Your task to perform on an android device: turn off improve location accuracy Image 0: 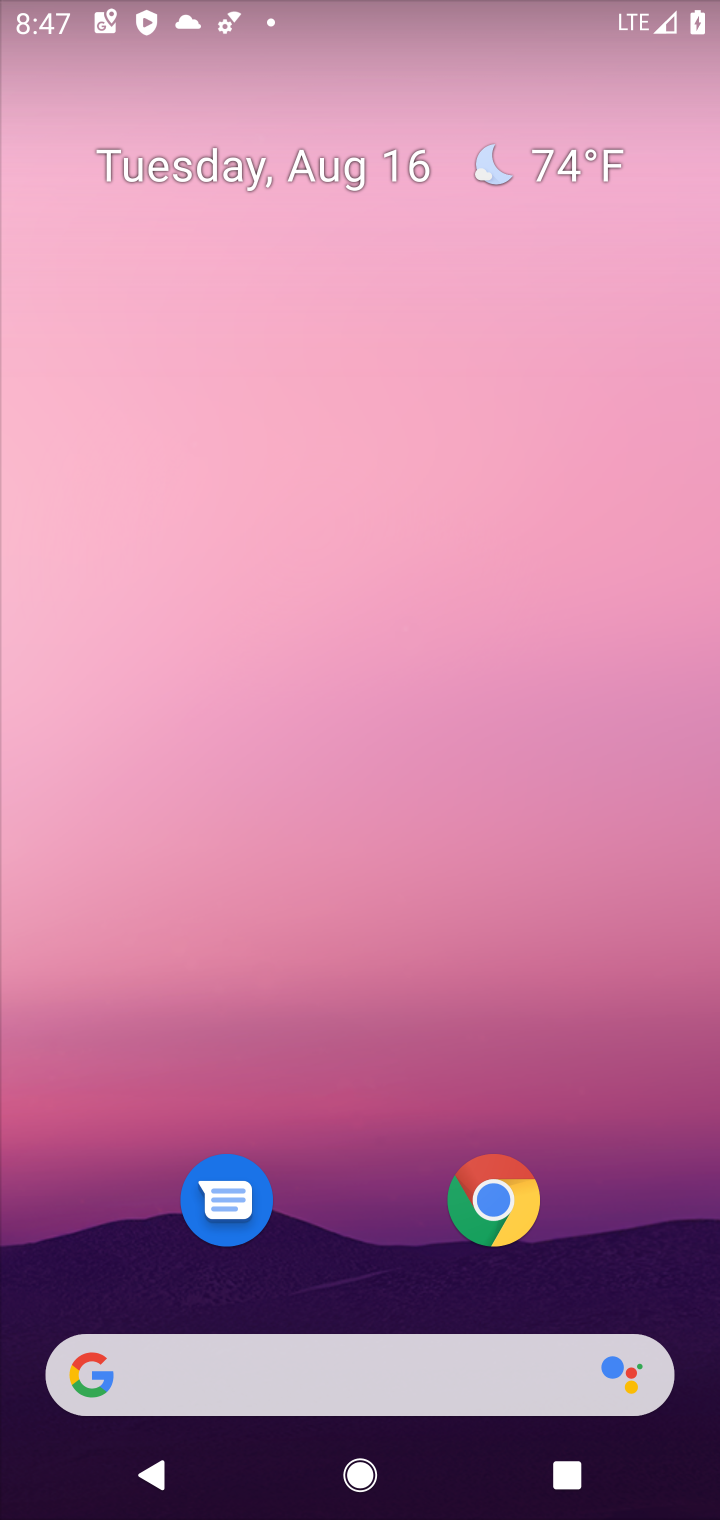
Step 0: drag from (646, 1280) to (599, 200)
Your task to perform on an android device: turn off improve location accuracy Image 1: 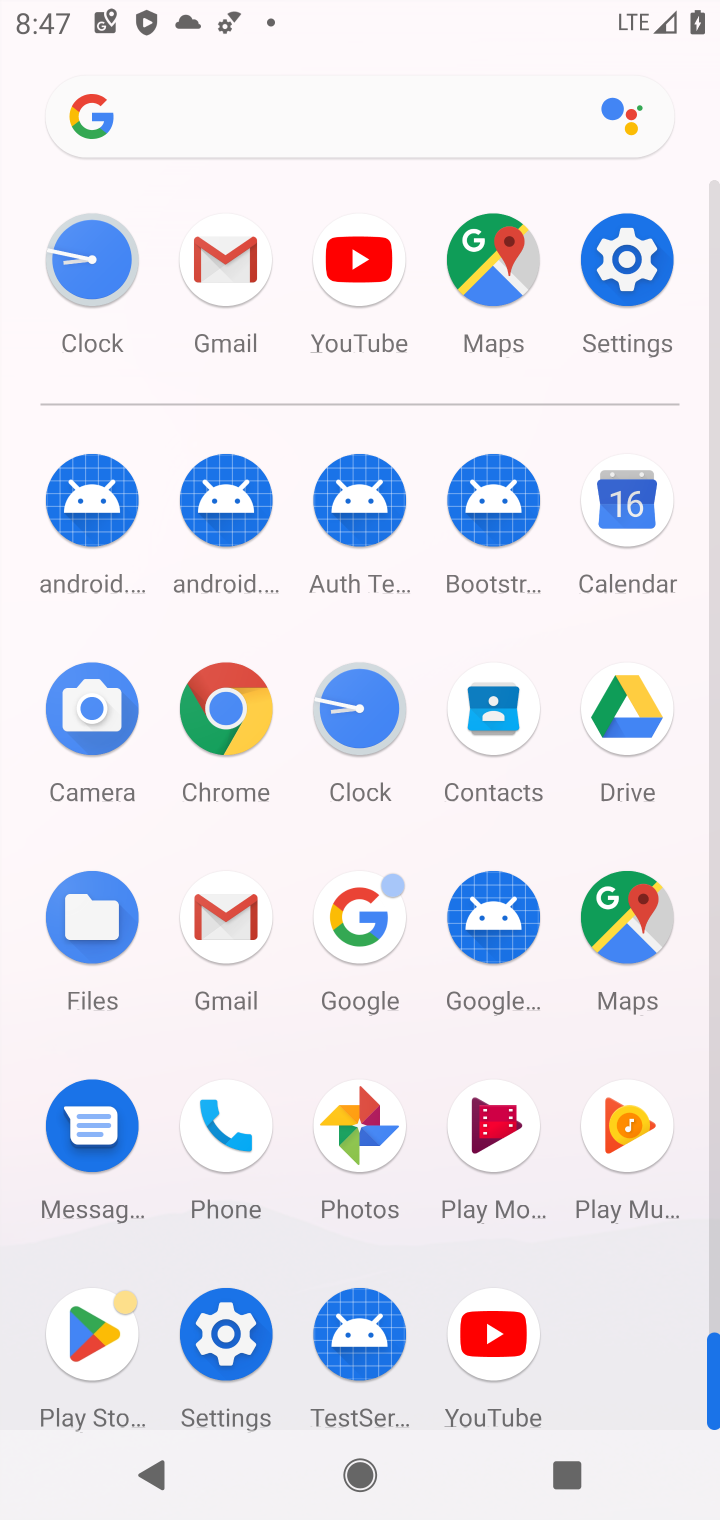
Step 1: click (222, 1337)
Your task to perform on an android device: turn off improve location accuracy Image 2: 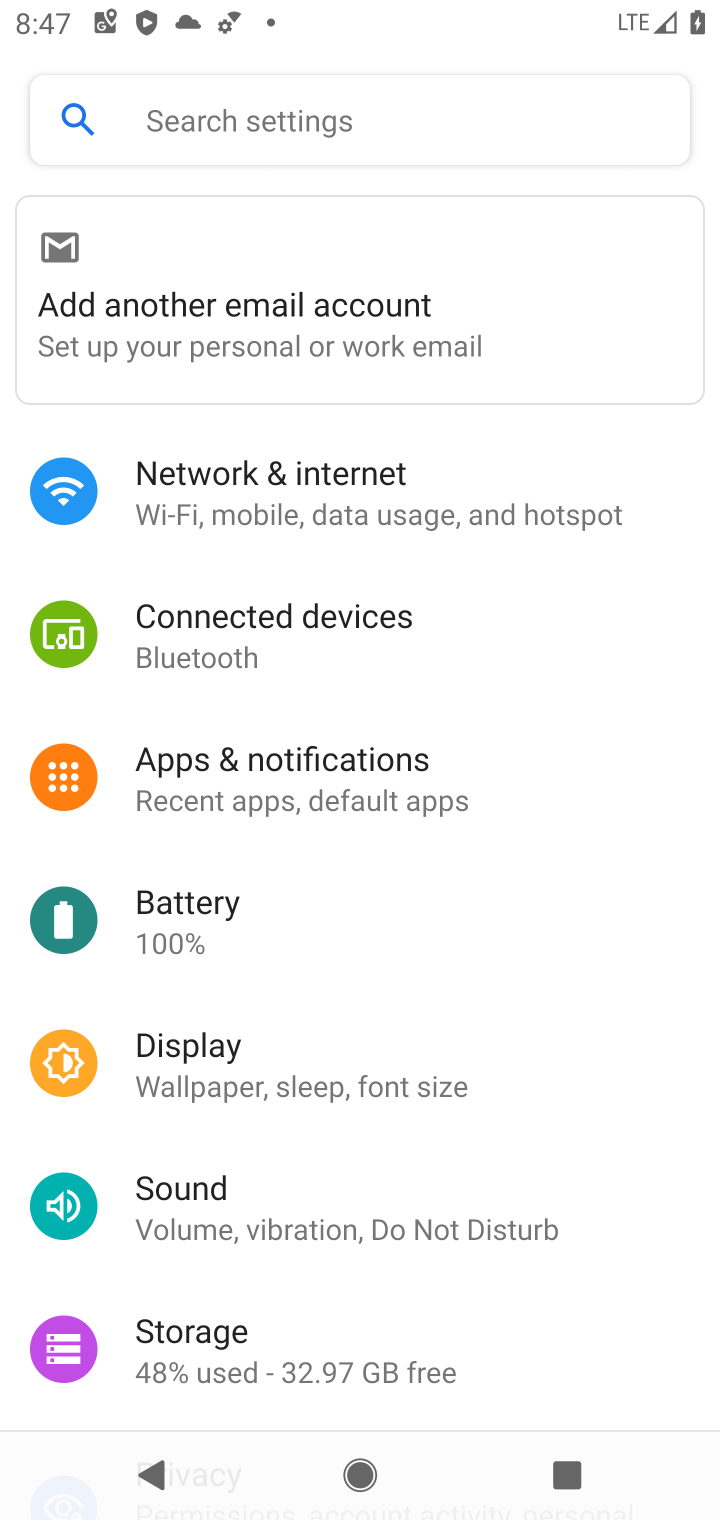
Step 2: drag from (613, 1239) to (551, 769)
Your task to perform on an android device: turn off improve location accuracy Image 3: 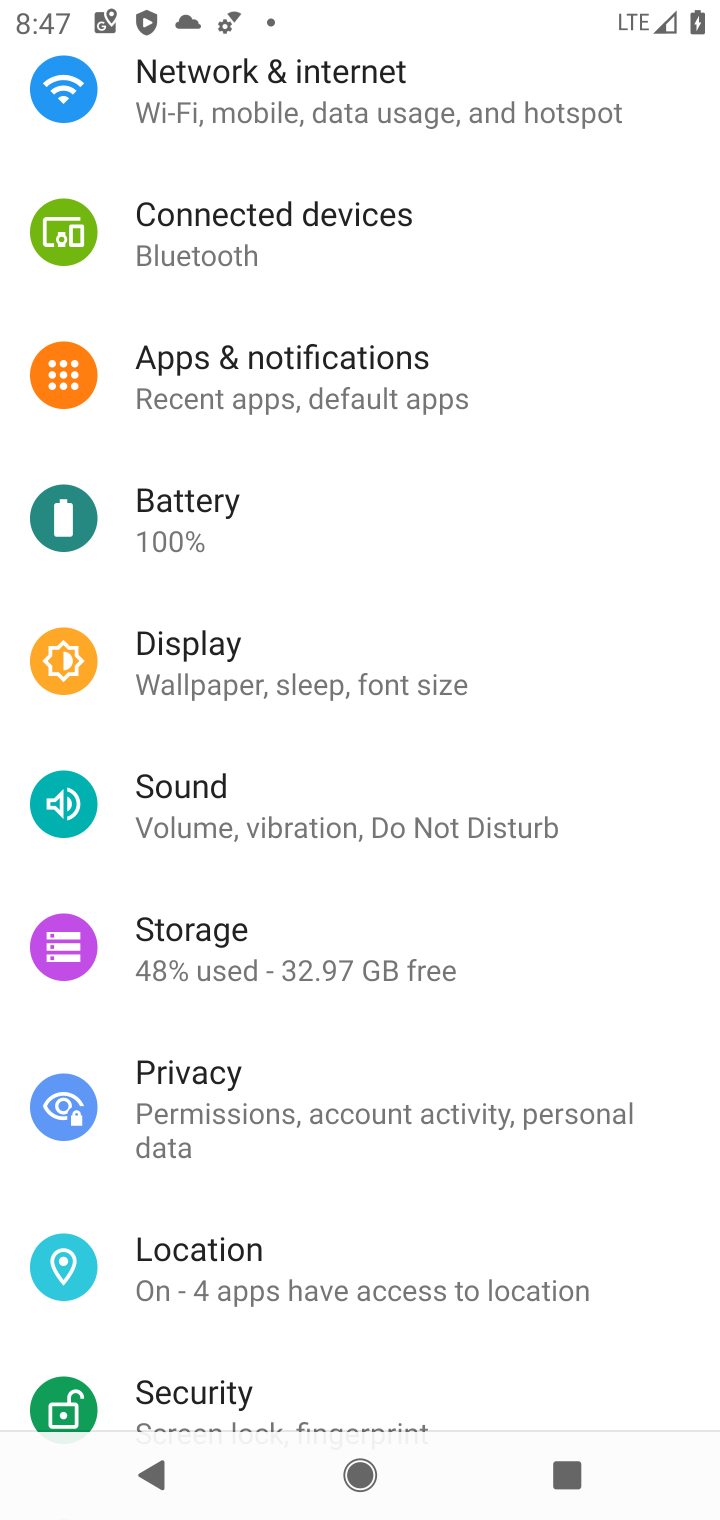
Step 3: click (210, 1252)
Your task to perform on an android device: turn off improve location accuracy Image 4: 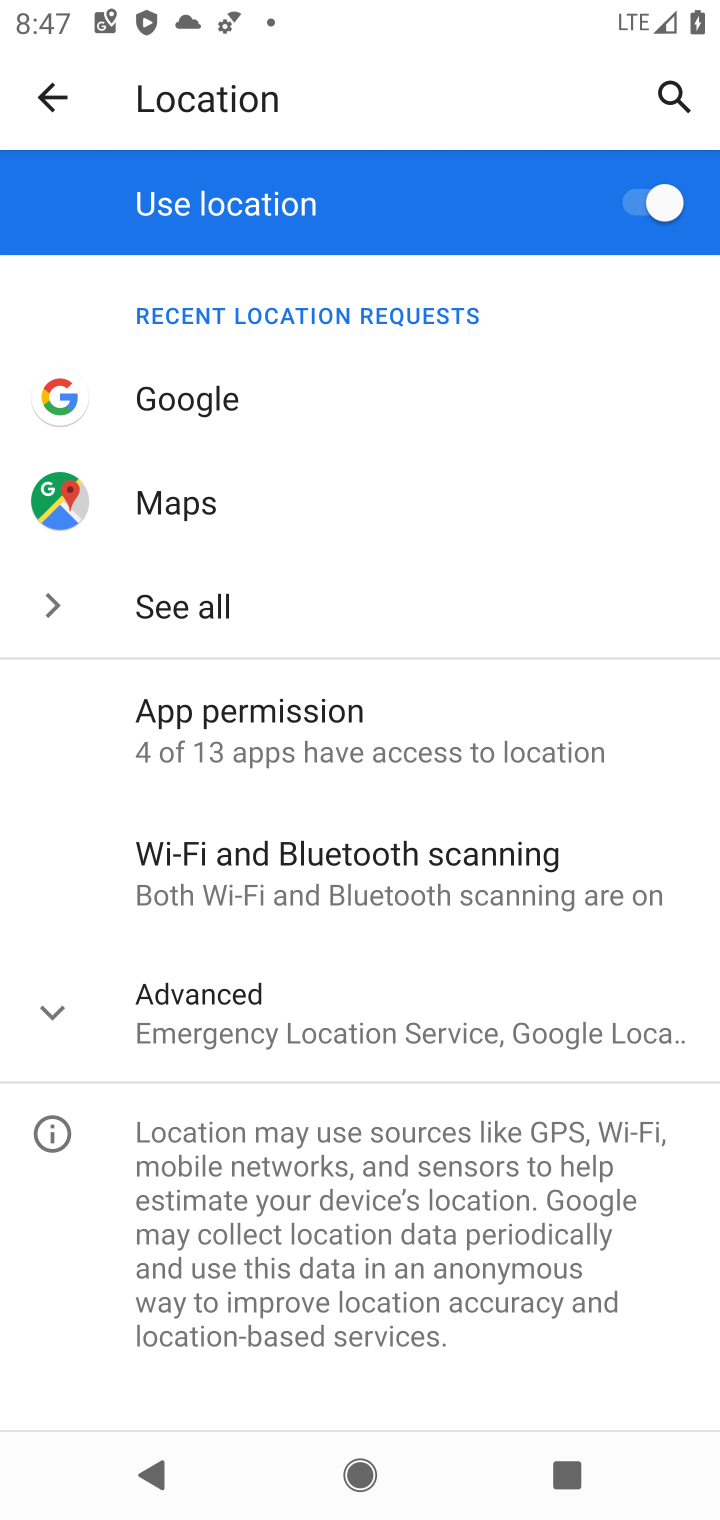
Step 4: click (44, 1017)
Your task to perform on an android device: turn off improve location accuracy Image 5: 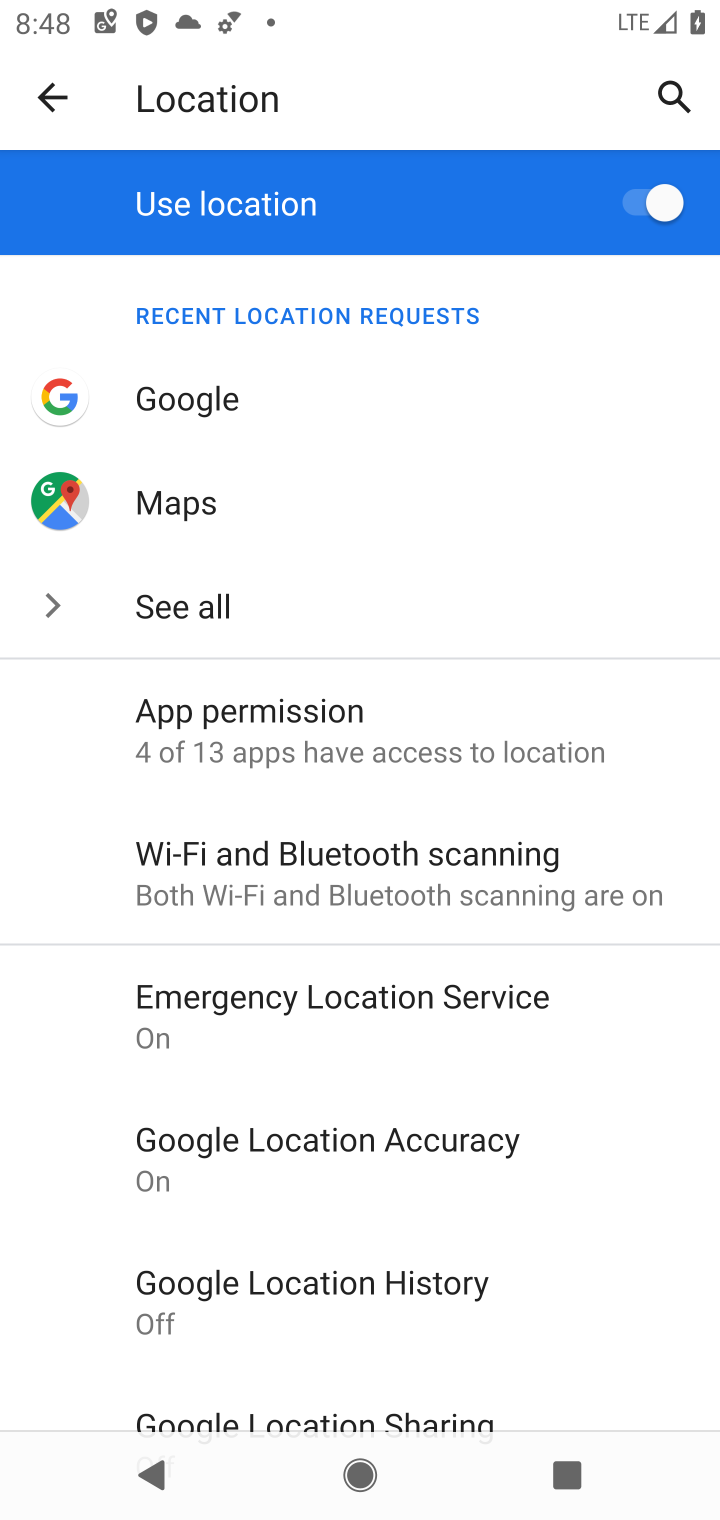
Step 5: click (284, 1145)
Your task to perform on an android device: turn off improve location accuracy Image 6: 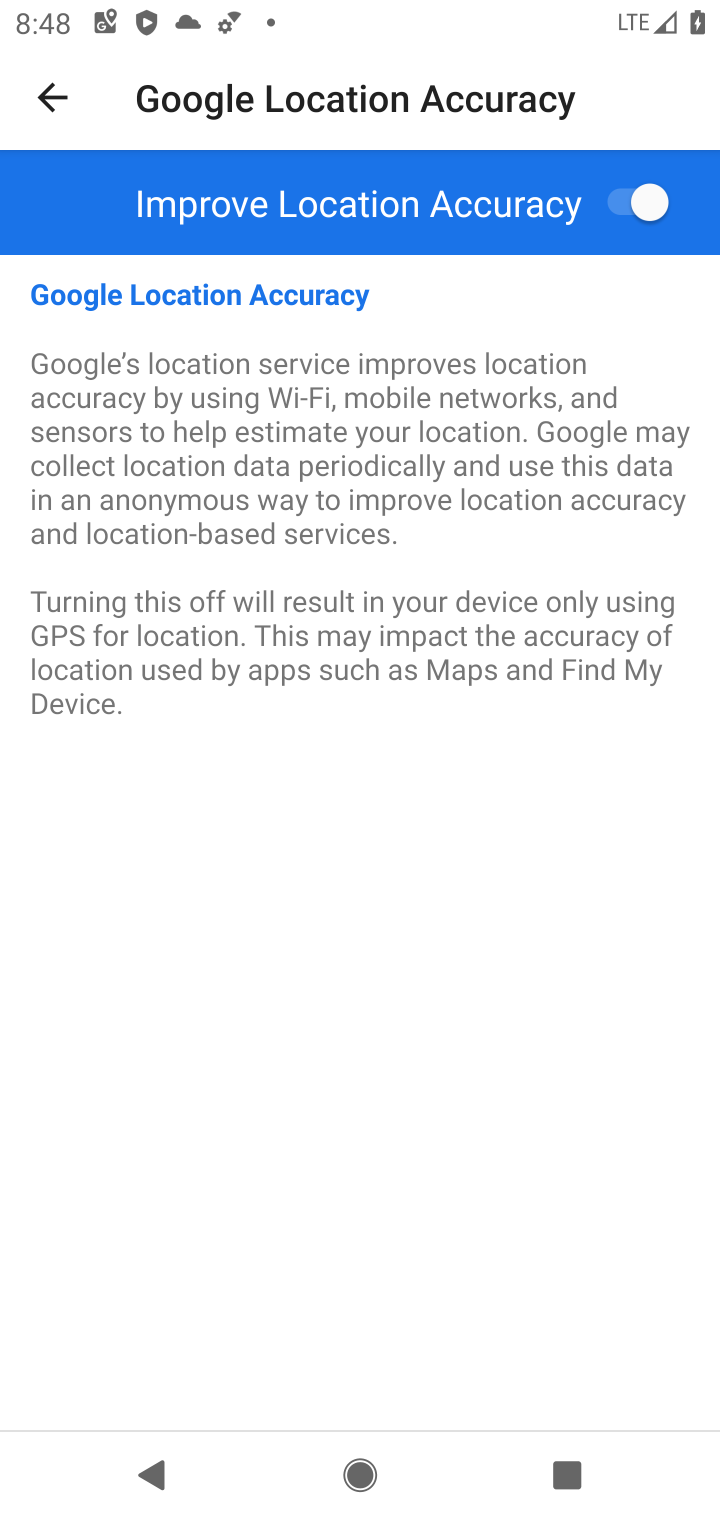
Step 6: click (618, 197)
Your task to perform on an android device: turn off improve location accuracy Image 7: 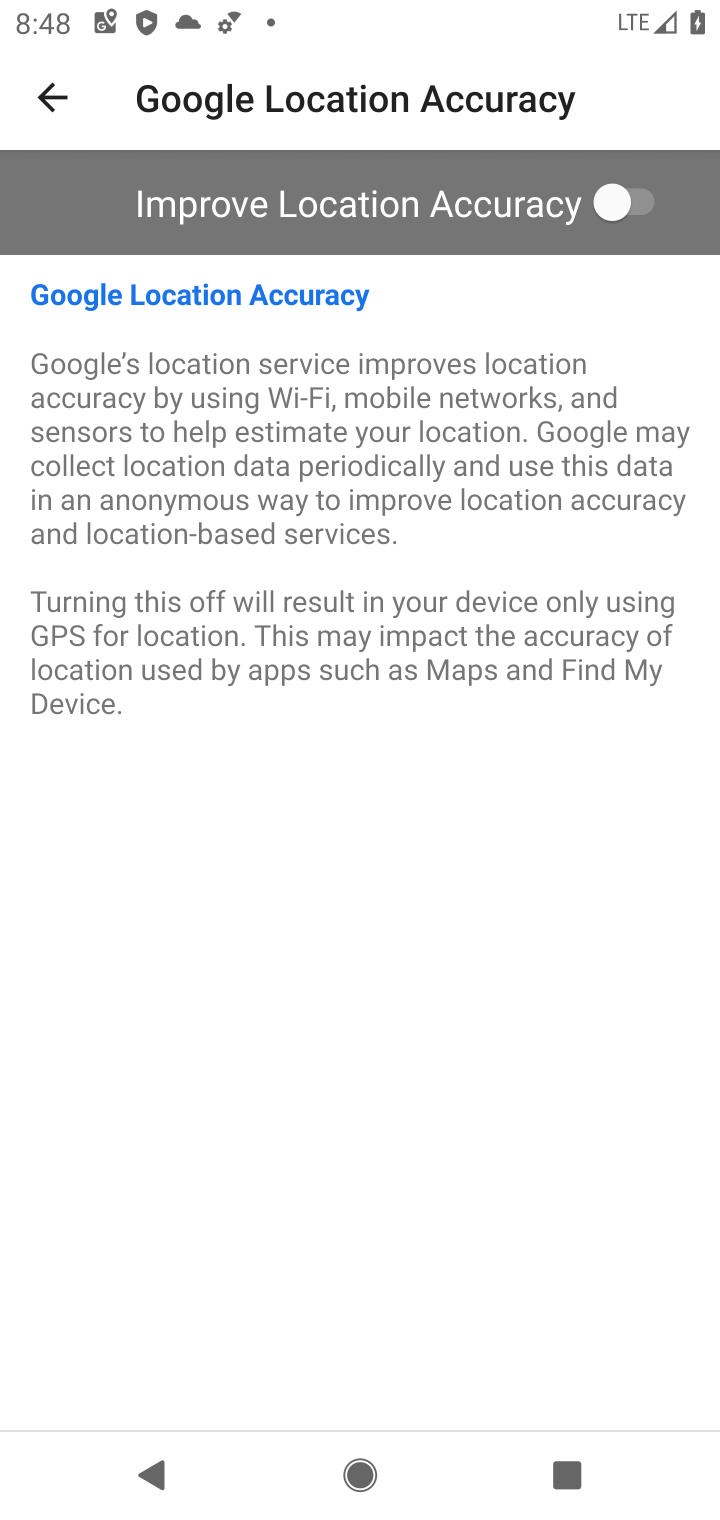
Step 7: task complete